Your task to perform on an android device: Play the last video I watched on Youtube Image 0: 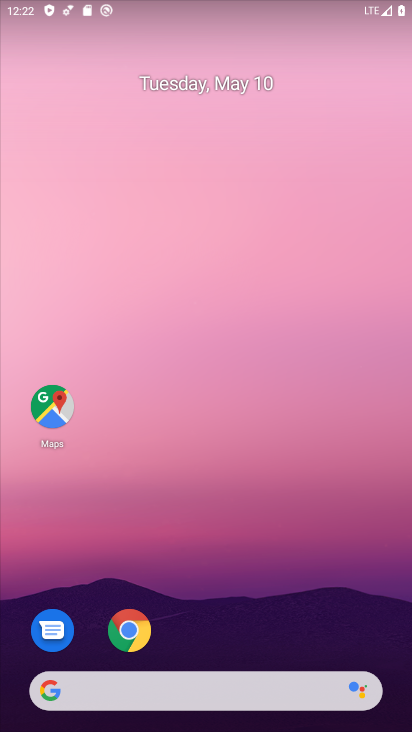
Step 0: drag from (216, 727) to (217, 102)
Your task to perform on an android device: Play the last video I watched on Youtube Image 1: 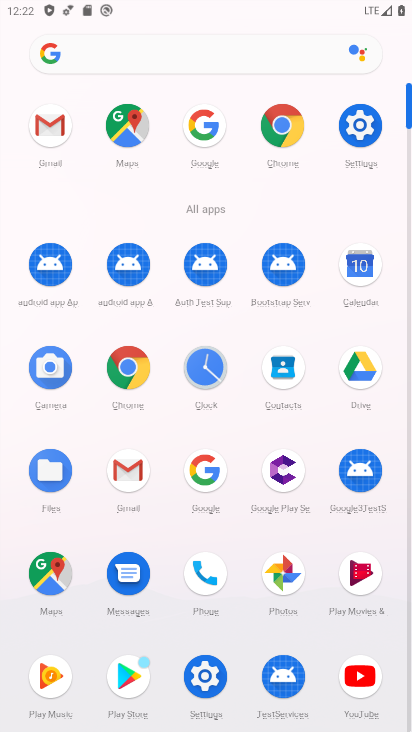
Step 1: click (357, 676)
Your task to perform on an android device: Play the last video I watched on Youtube Image 2: 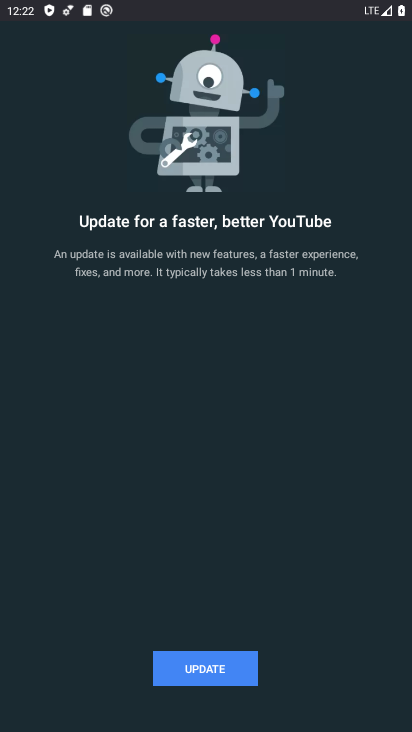
Step 2: task complete